Your task to perform on an android device: toggle translation in the chrome app Image 0: 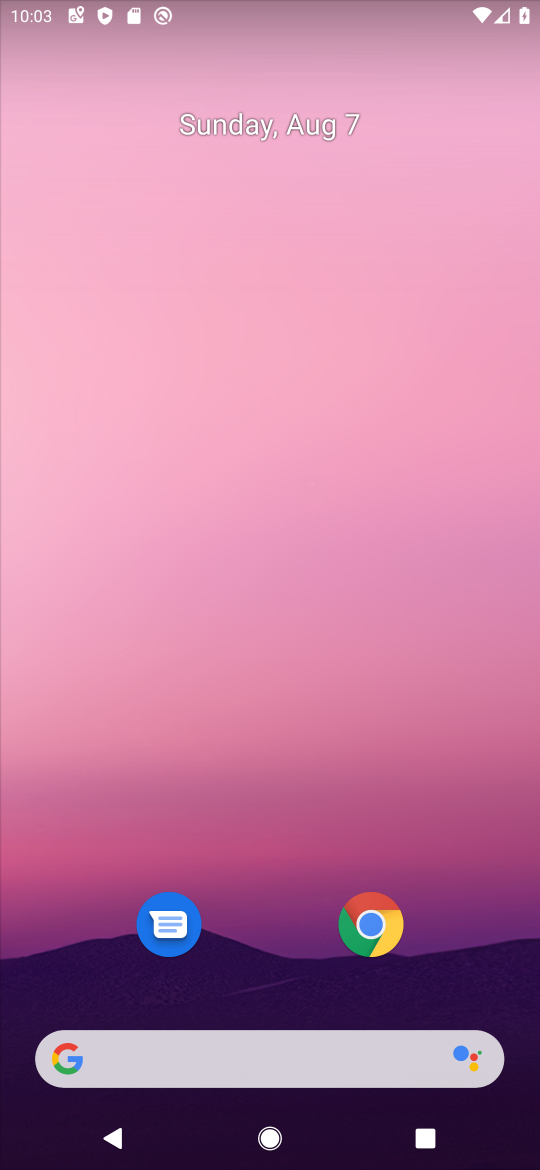
Step 0: click (374, 938)
Your task to perform on an android device: toggle translation in the chrome app Image 1: 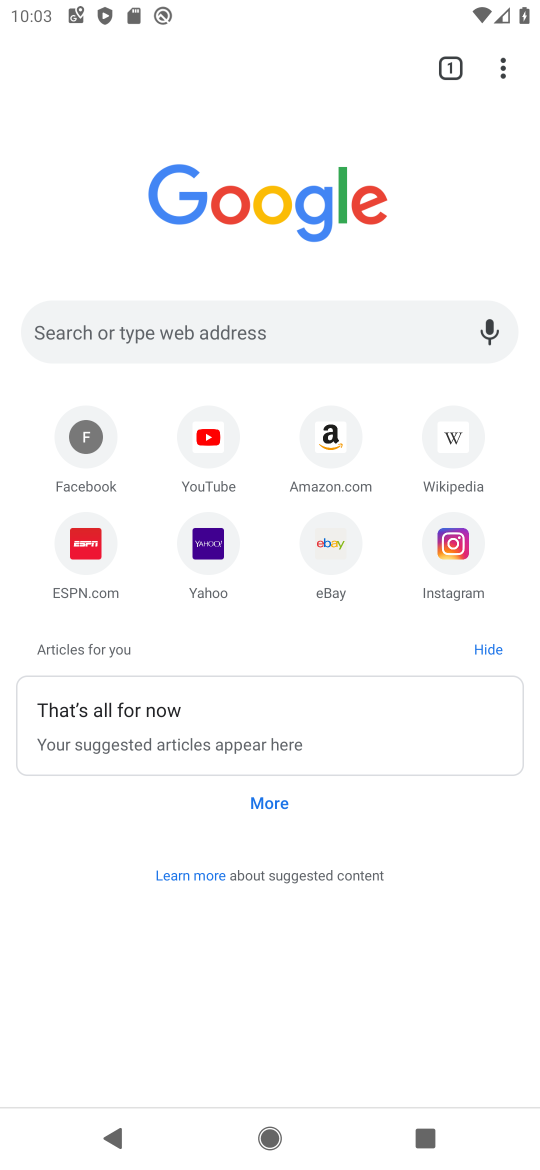
Step 1: click (507, 82)
Your task to perform on an android device: toggle translation in the chrome app Image 2: 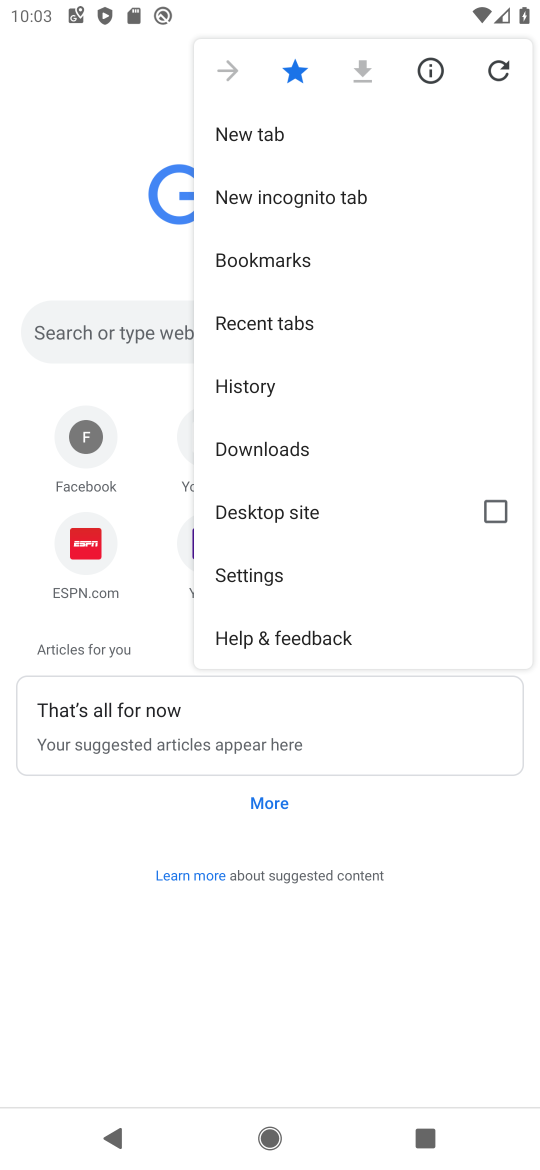
Step 2: click (260, 577)
Your task to perform on an android device: toggle translation in the chrome app Image 3: 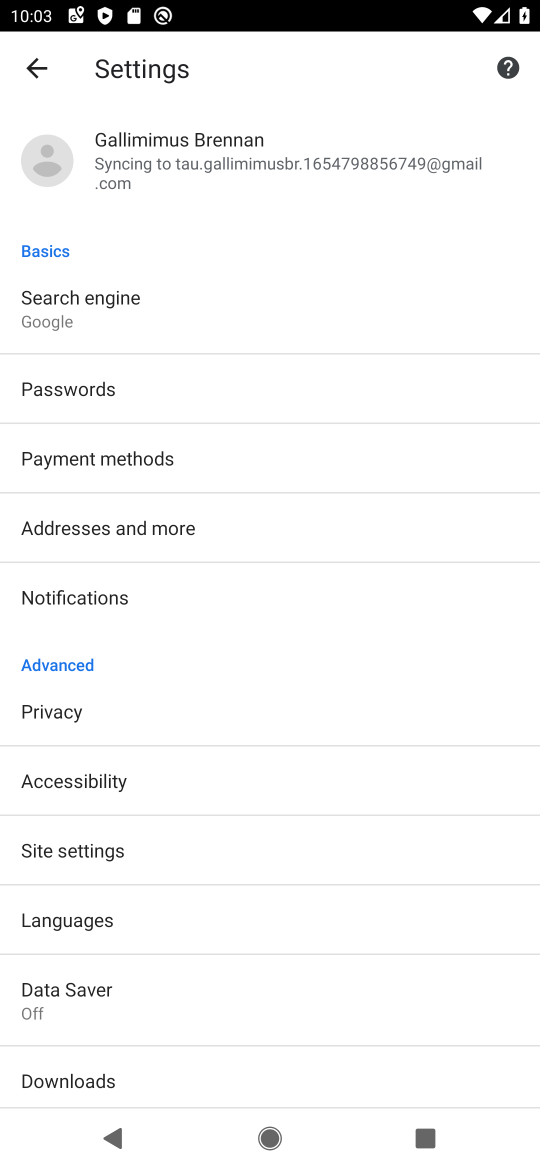
Step 3: click (87, 911)
Your task to perform on an android device: toggle translation in the chrome app Image 4: 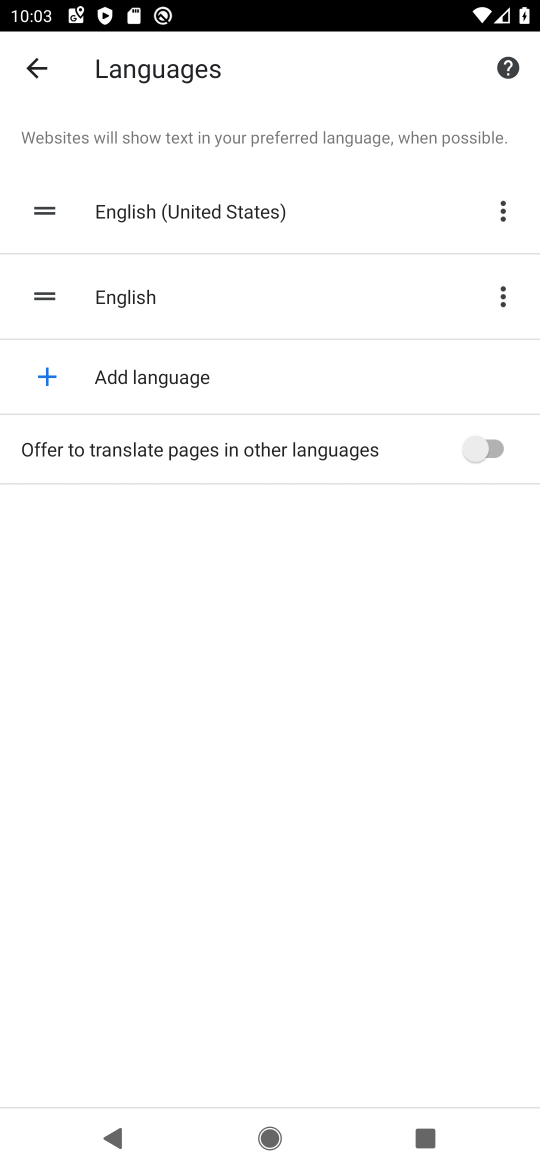
Step 4: click (476, 454)
Your task to perform on an android device: toggle translation in the chrome app Image 5: 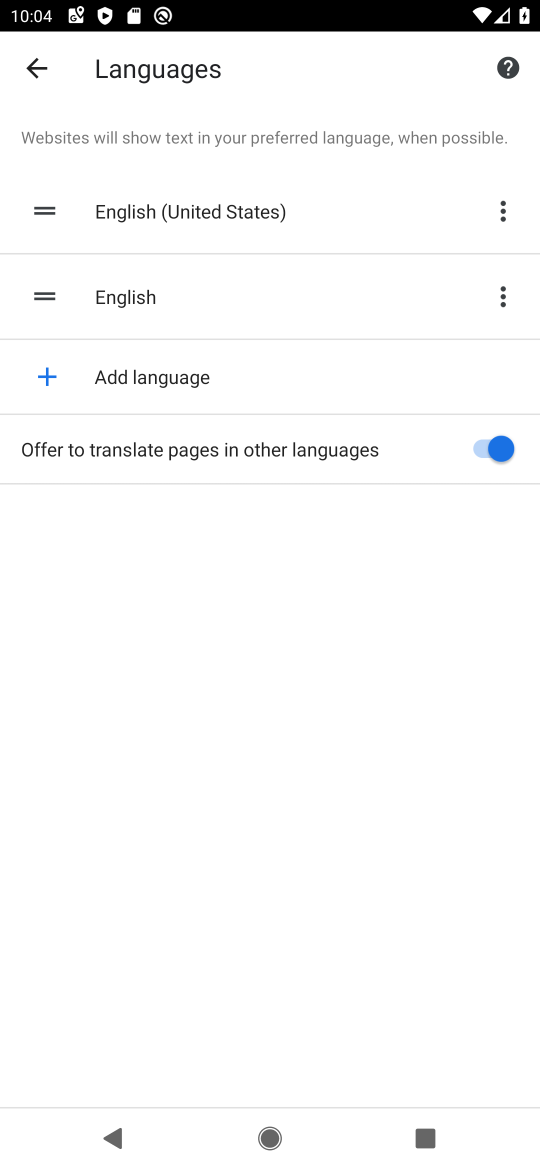
Step 5: task complete